Your task to perform on an android device: toggle data saver in the chrome app Image 0: 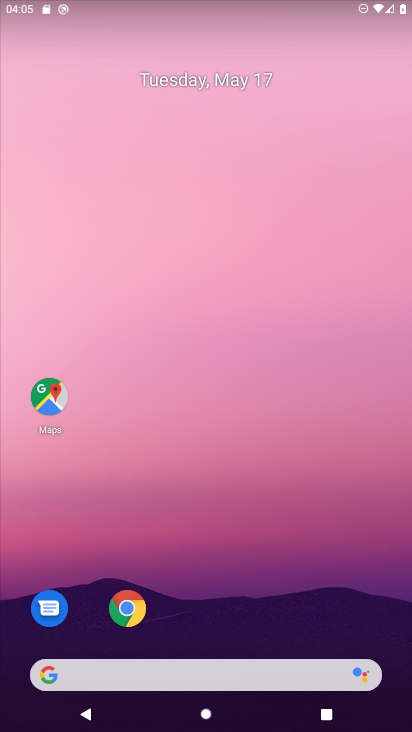
Step 0: click (128, 607)
Your task to perform on an android device: toggle data saver in the chrome app Image 1: 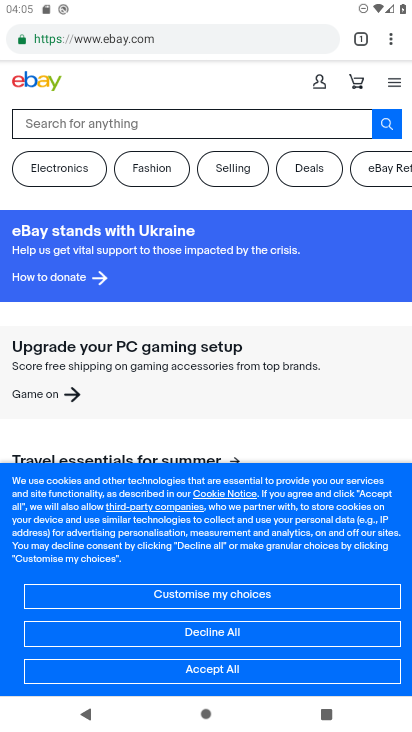
Step 1: click (389, 36)
Your task to perform on an android device: toggle data saver in the chrome app Image 2: 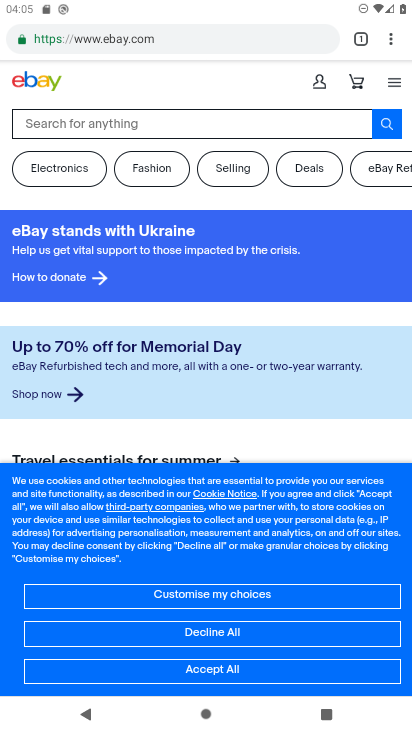
Step 2: click (394, 37)
Your task to perform on an android device: toggle data saver in the chrome app Image 3: 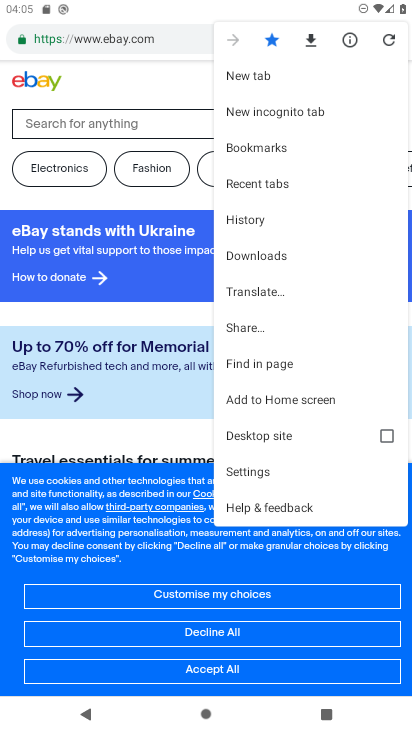
Step 3: click (265, 471)
Your task to perform on an android device: toggle data saver in the chrome app Image 4: 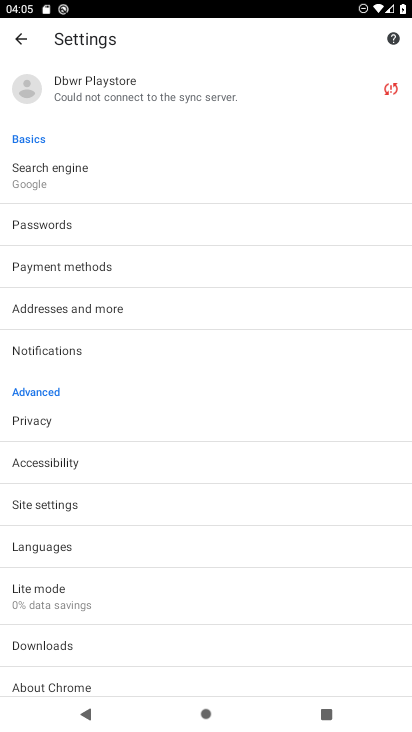
Step 4: click (46, 507)
Your task to perform on an android device: toggle data saver in the chrome app Image 5: 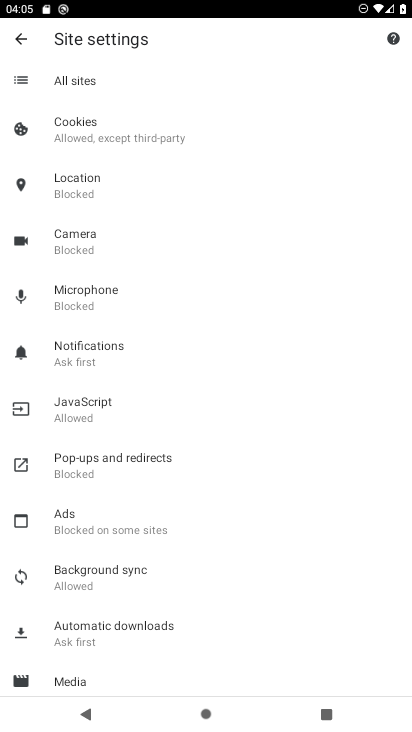
Step 5: click (22, 39)
Your task to perform on an android device: toggle data saver in the chrome app Image 6: 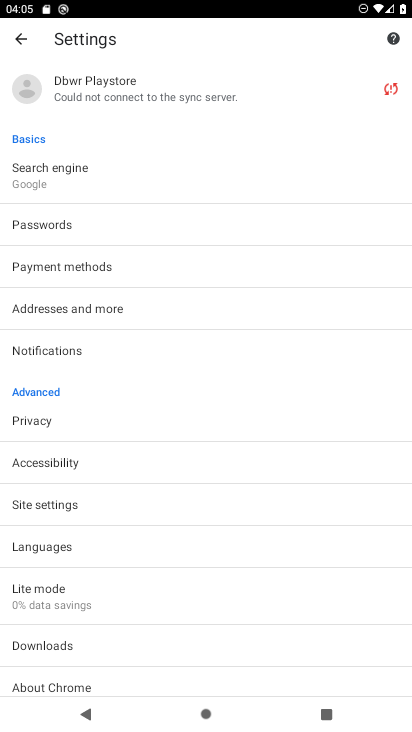
Step 6: click (38, 593)
Your task to perform on an android device: toggle data saver in the chrome app Image 7: 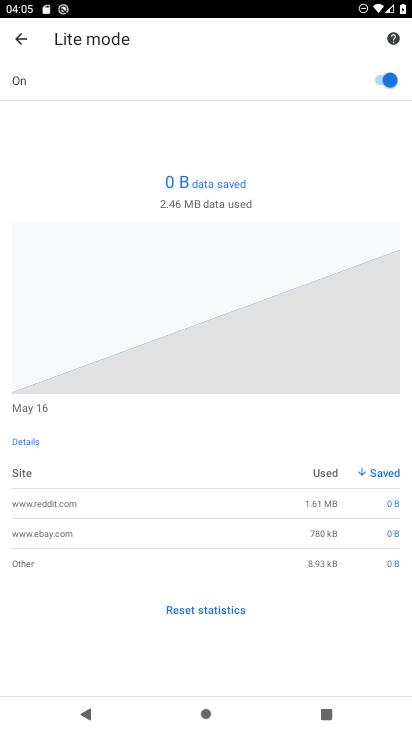
Step 7: click (379, 78)
Your task to perform on an android device: toggle data saver in the chrome app Image 8: 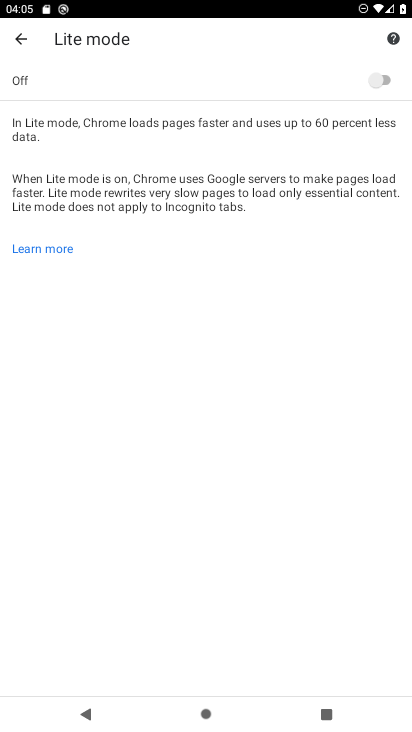
Step 8: task complete